Your task to perform on an android device: Turn off the flashlight Image 0: 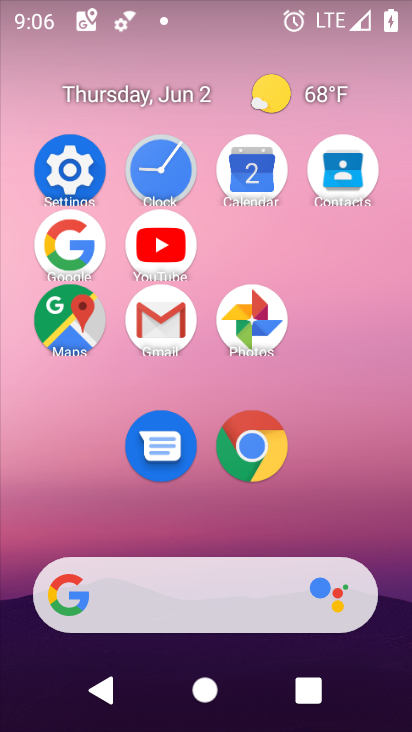
Step 0: drag from (239, 7) to (218, 593)
Your task to perform on an android device: Turn off the flashlight Image 1: 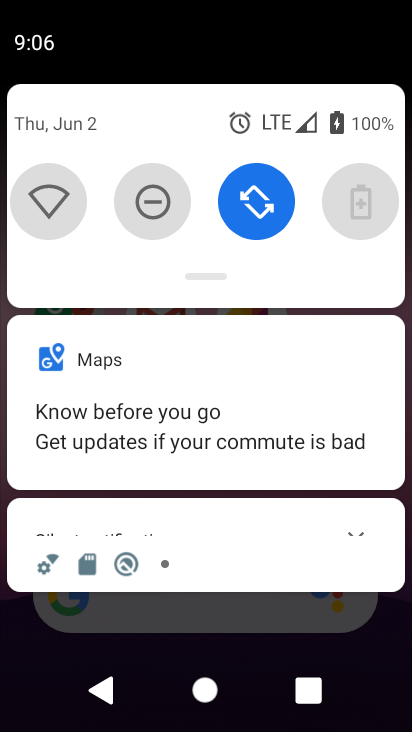
Step 1: task complete